Your task to perform on an android device: Search for the new Nike Air Jordan 33 on Nike.com Image 0: 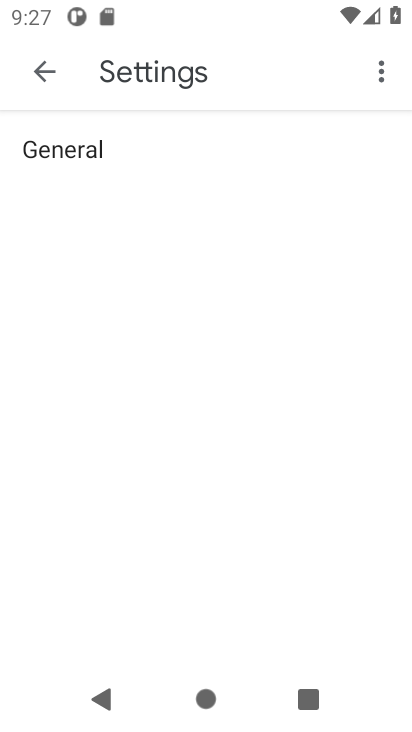
Step 0: press home button
Your task to perform on an android device: Search for the new Nike Air Jordan 33 on Nike.com Image 1: 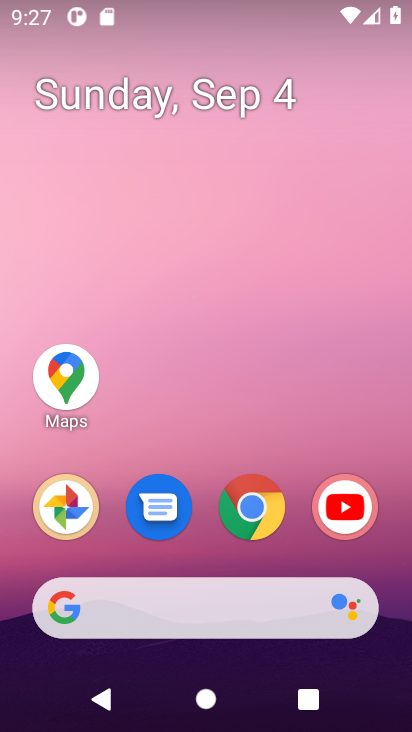
Step 1: click (247, 509)
Your task to perform on an android device: Search for the new Nike Air Jordan 33 on Nike.com Image 2: 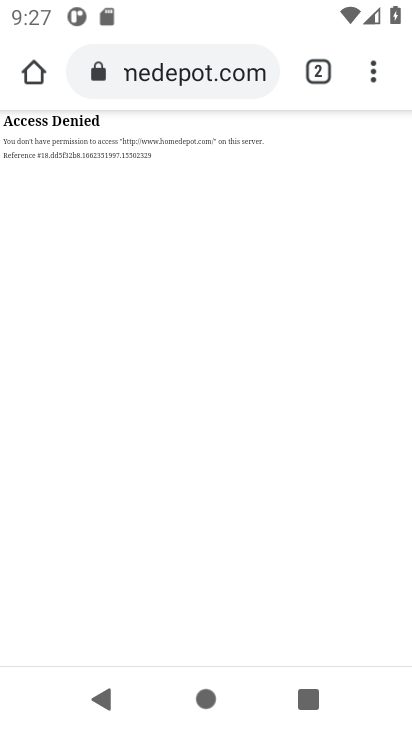
Step 2: click (128, 60)
Your task to perform on an android device: Search for the new Nike Air Jordan 33 on Nike.com Image 3: 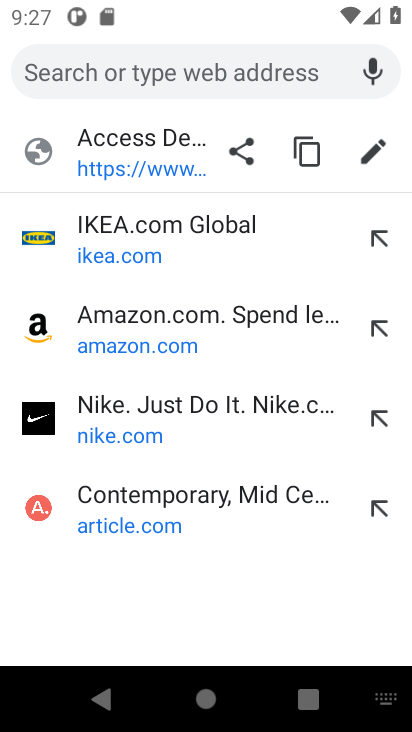
Step 3: type "Nike.com"
Your task to perform on an android device: Search for the new Nike Air Jordan 33 on Nike.com Image 4: 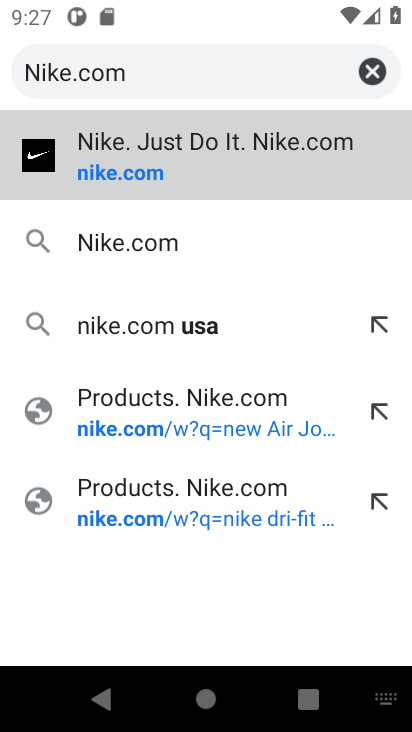
Step 4: click (160, 154)
Your task to perform on an android device: Search for the new Nike Air Jordan 33 on Nike.com Image 5: 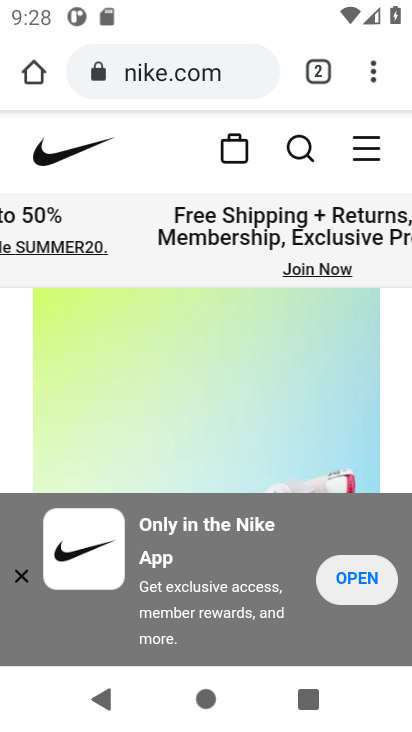
Step 5: click (18, 574)
Your task to perform on an android device: Search for the new Nike Air Jordan 33 on Nike.com Image 6: 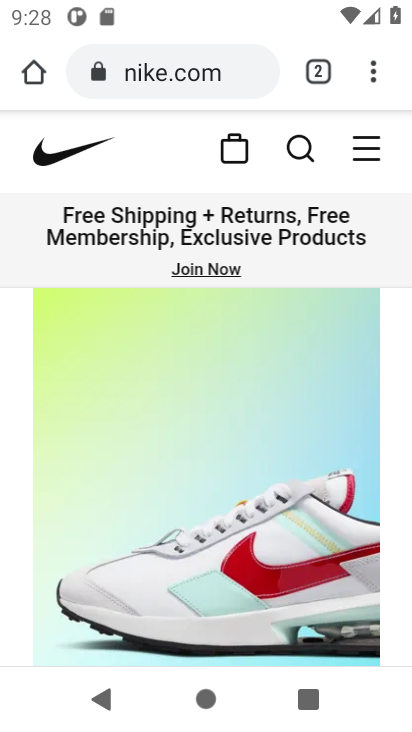
Step 6: click (300, 142)
Your task to perform on an android device: Search for the new Nike Air Jordan 33 on Nike.com Image 7: 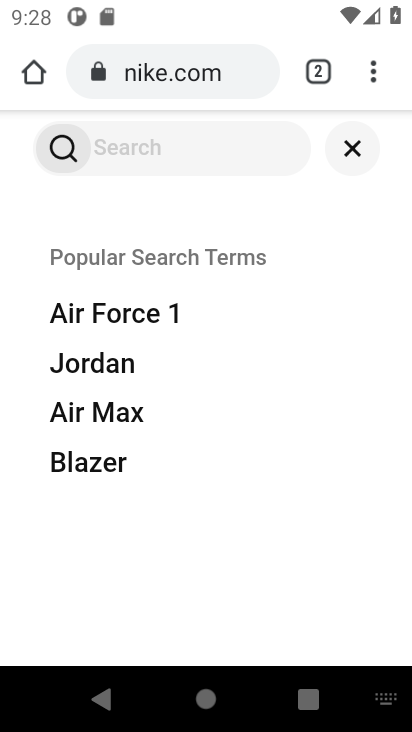
Step 7: type "Nike Air Jordan 33"
Your task to perform on an android device: Search for the new Nike Air Jordan 33 on Nike.com Image 8: 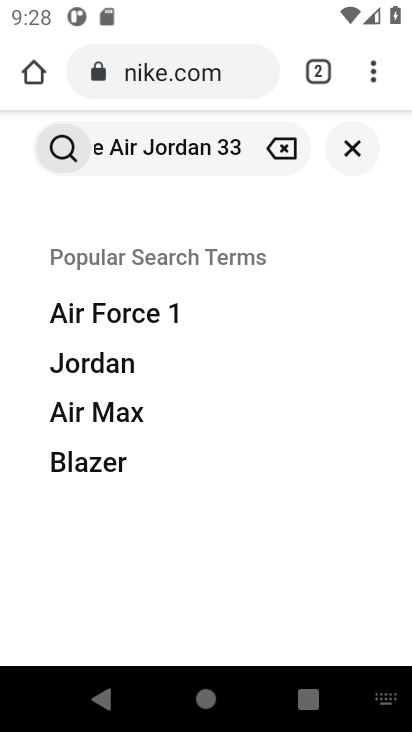
Step 8: click (62, 144)
Your task to perform on an android device: Search for the new Nike Air Jordan 33 on Nike.com Image 9: 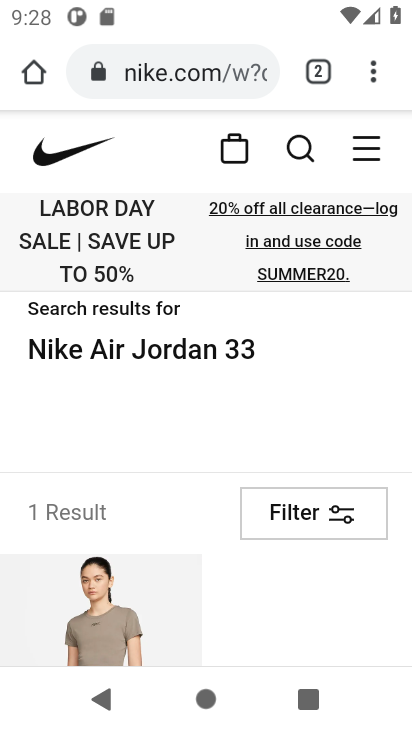
Step 9: task complete